Your task to perform on an android device: Find coffee shops on Maps Image 0: 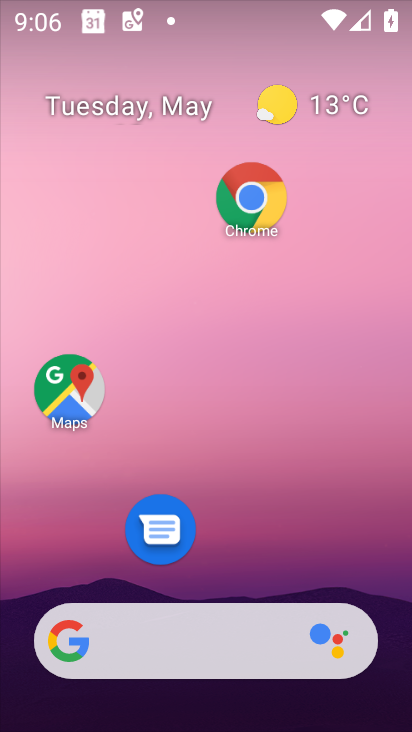
Step 0: drag from (327, 570) to (382, 64)
Your task to perform on an android device: Find coffee shops on Maps Image 1: 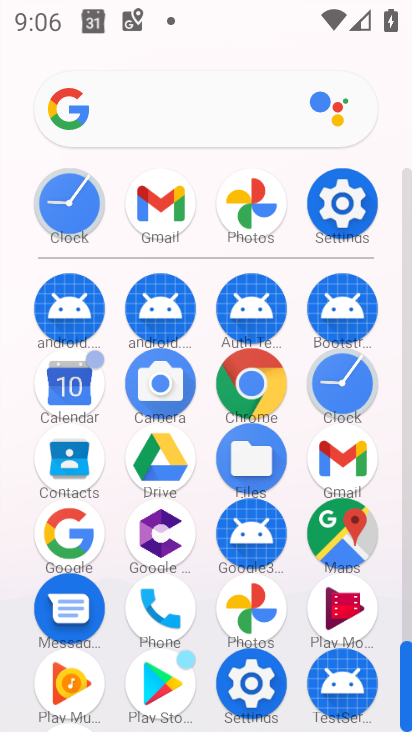
Step 1: click (359, 547)
Your task to perform on an android device: Find coffee shops on Maps Image 2: 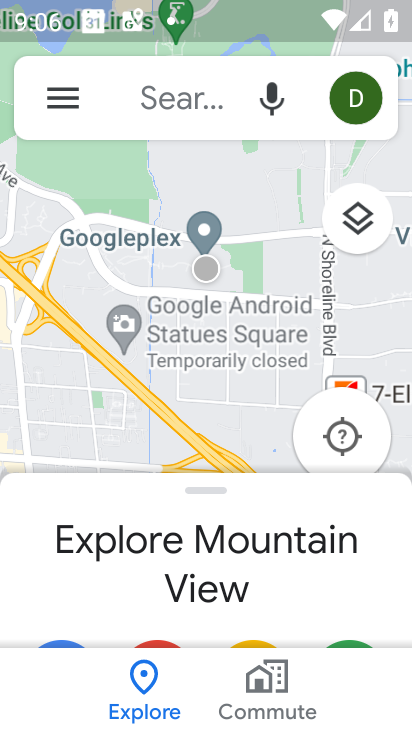
Step 2: click (149, 104)
Your task to perform on an android device: Find coffee shops on Maps Image 3: 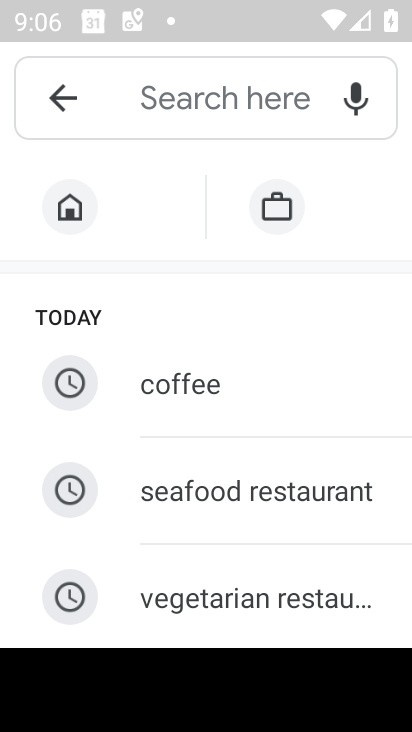
Step 3: click (196, 369)
Your task to perform on an android device: Find coffee shops on Maps Image 4: 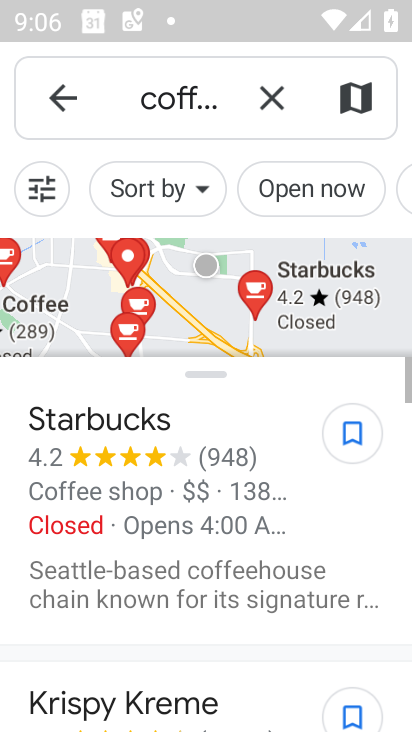
Step 4: task complete